Your task to perform on an android device: open chrome privacy settings Image 0: 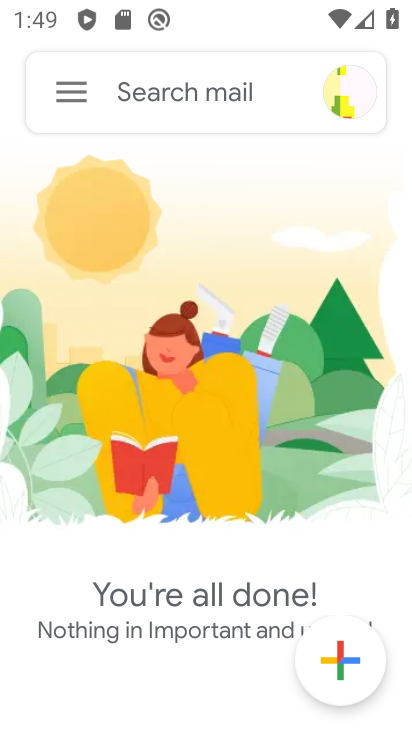
Step 0: press home button
Your task to perform on an android device: open chrome privacy settings Image 1: 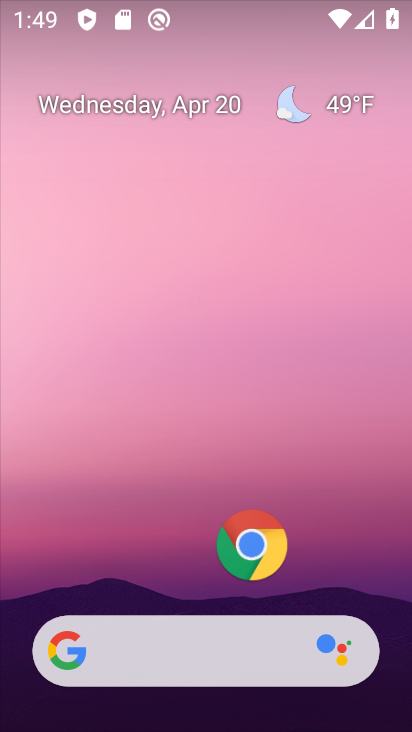
Step 1: click (248, 548)
Your task to perform on an android device: open chrome privacy settings Image 2: 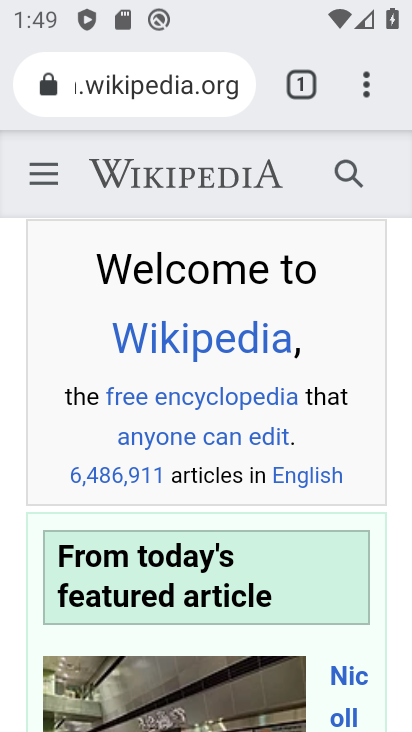
Step 2: click (366, 85)
Your task to perform on an android device: open chrome privacy settings Image 3: 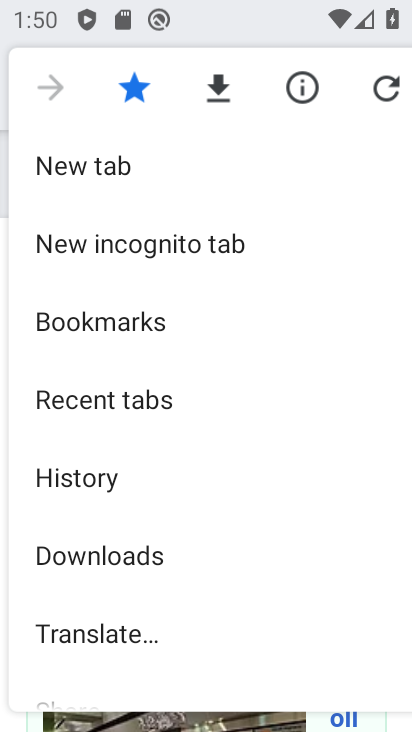
Step 3: drag from (148, 483) to (177, 293)
Your task to perform on an android device: open chrome privacy settings Image 4: 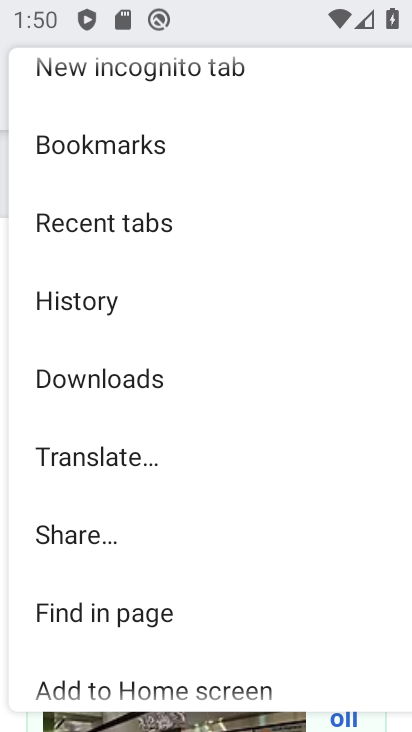
Step 4: drag from (210, 527) to (266, 338)
Your task to perform on an android device: open chrome privacy settings Image 5: 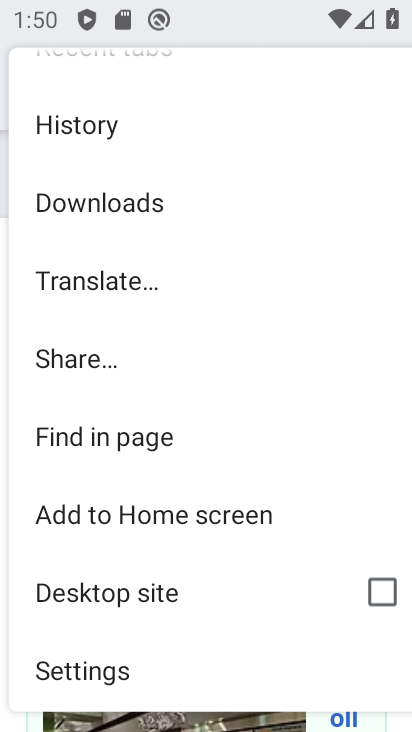
Step 5: drag from (199, 578) to (251, 450)
Your task to perform on an android device: open chrome privacy settings Image 6: 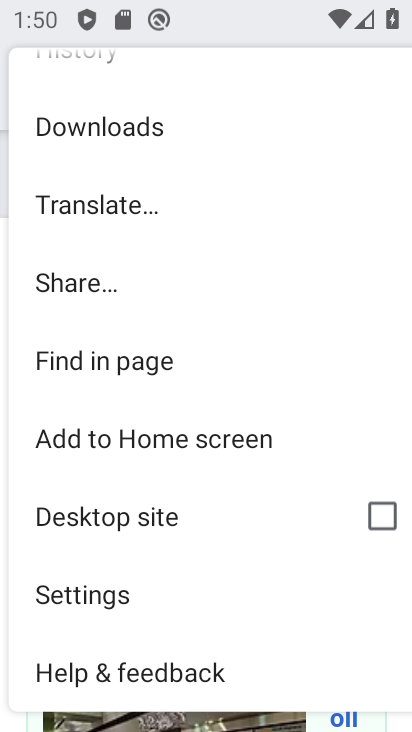
Step 6: click (82, 592)
Your task to perform on an android device: open chrome privacy settings Image 7: 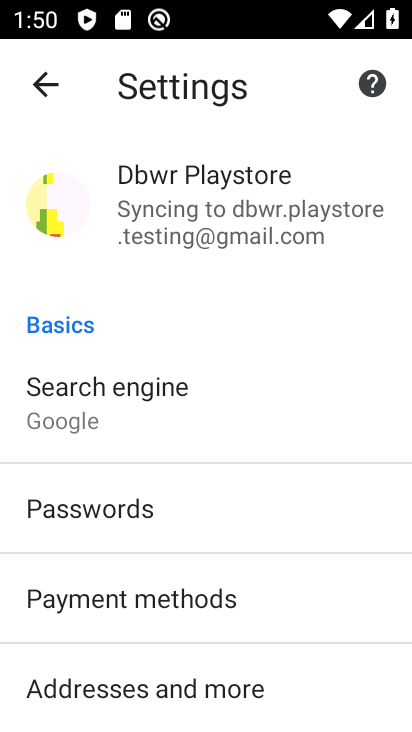
Step 7: drag from (244, 610) to (258, 381)
Your task to perform on an android device: open chrome privacy settings Image 8: 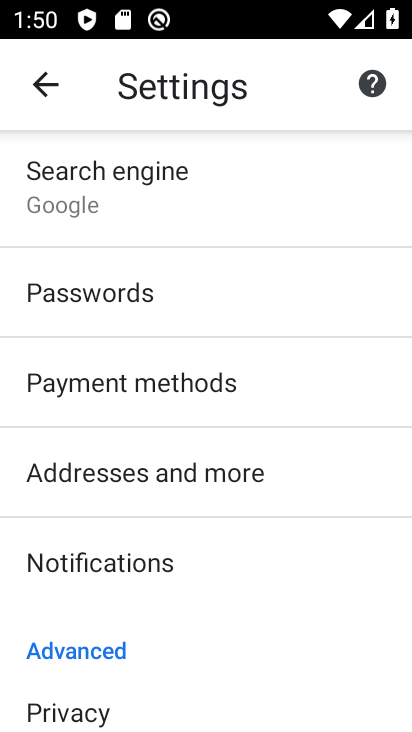
Step 8: drag from (156, 590) to (222, 396)
Your task to perform on an android device: open chrome privacy settings Image 9: 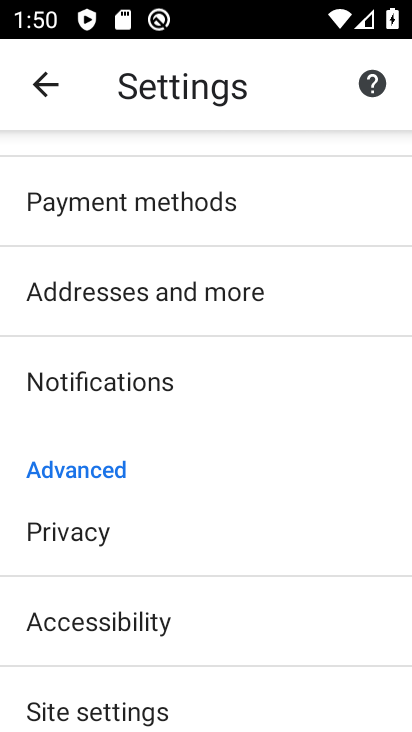
Step 9: click (108, 533)
Your task to perform on an android device: open chrome privacy settings Image 10: 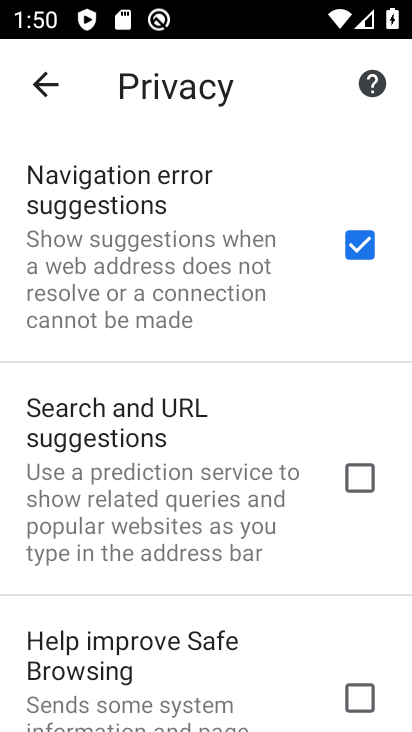
Step 10: task complete